Your task to perform on an android device: Open Youtube and go to the subscriptions tab Image 0: 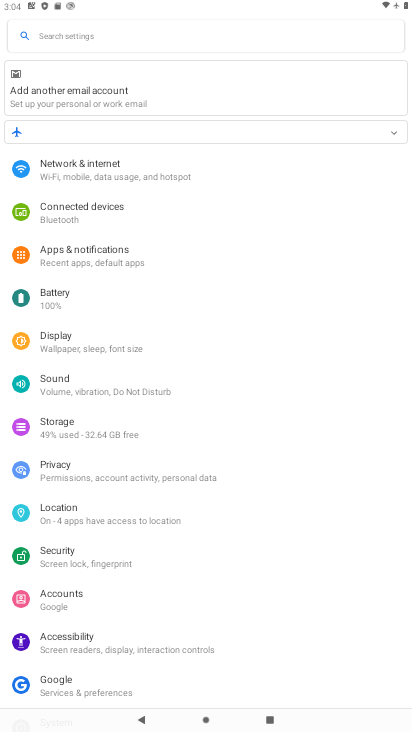
Step 0: press home button
Your task to perform on an android device: Open Youtube and go to the subscriptions tab Image 1: 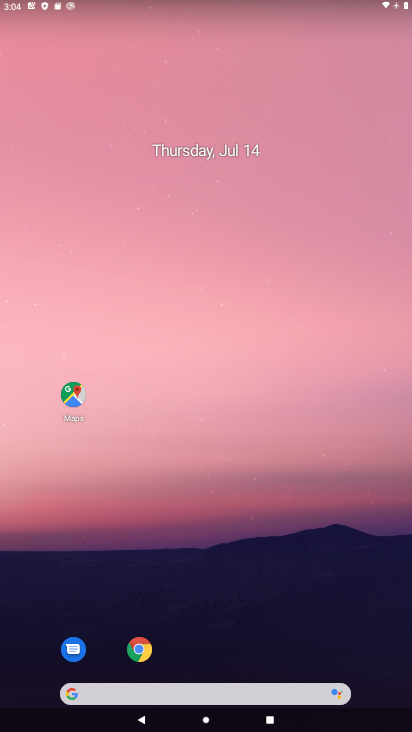
Step 1: drag from (190, 623) to (216, 104)
Your task to perform on an android device: Open Youtube and go to the subscriptions tab Image 2: 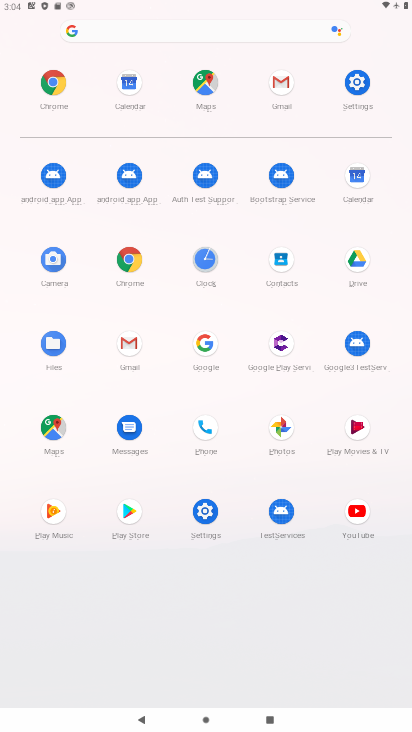
Step 2: click (354, 516)
Your task to perform on an android device: Open Youtube and go to the subscriptions tab Image 3: 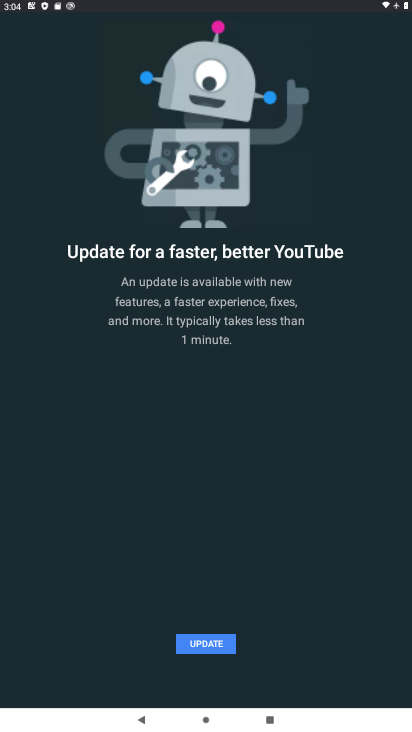
Step 3: click (208, 659)
Your task to perform on an android device: Open Youtube and go to the subscriptions tab Image 4: 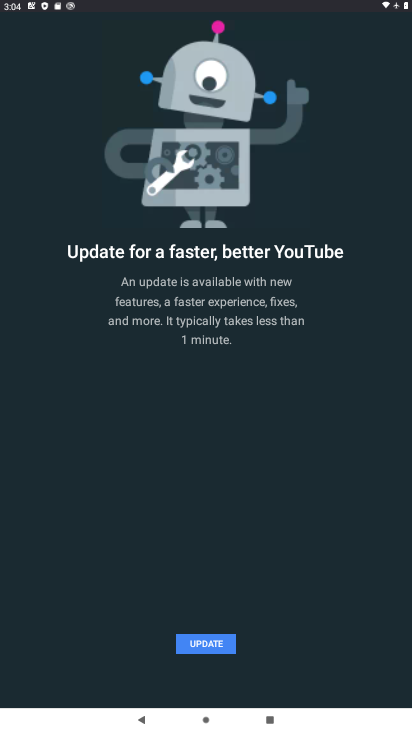
Step 4: click (219, 643)
Your task to perform on an android device: Open Youtube and go to the subscriptions tab Image 5: 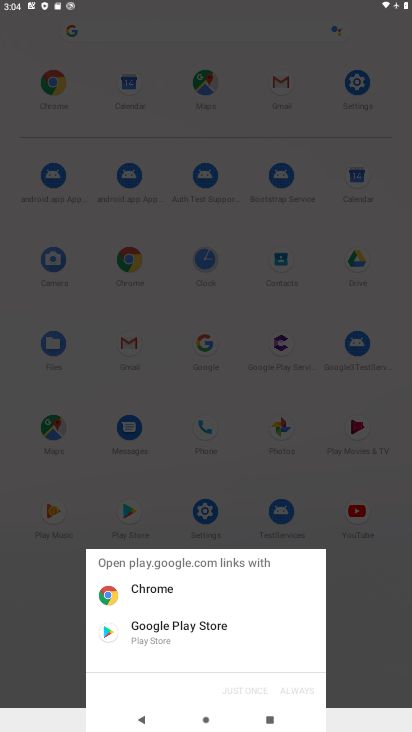
Step 5: click (166, 627)
Your task to perform on an android device: Open Youtube and go to the subscriptions tab Image 6: 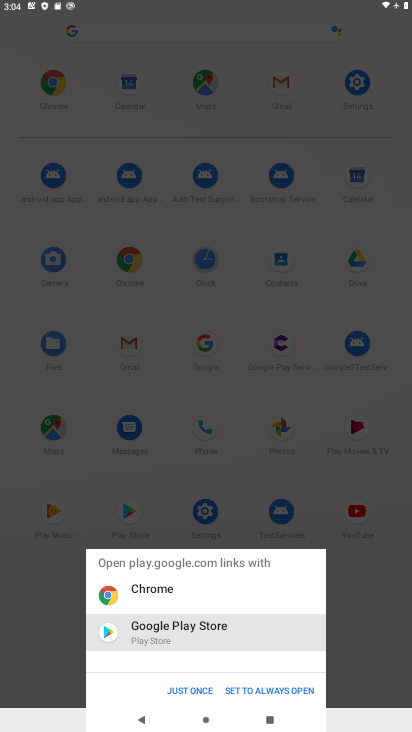
Step 6: click (196, 690)
Your task to perform on an android device: Open Youtube and go to the subscriptions tab Image 7: 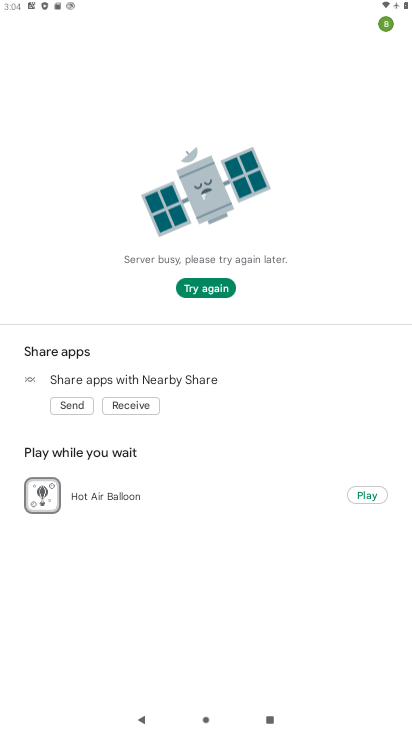
Step 7: click (209, 286)
Your task to perform on an android device: Open Youtube and go to the subscriptions tab Image 8: 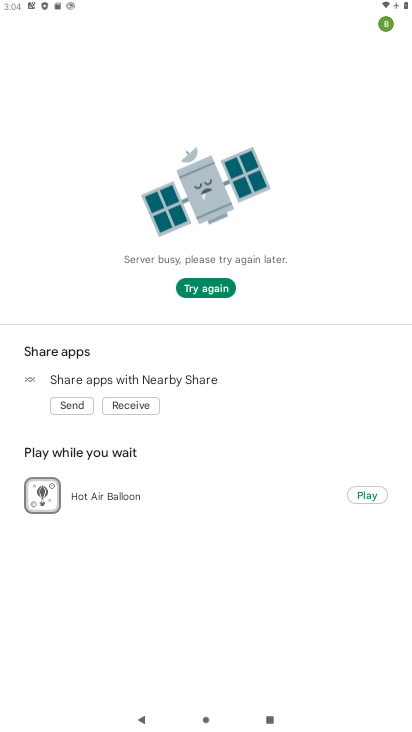
Step 8: click (211, 296)
Your task to perform on an android device: Open Youtube and go to the subscriptions tab Image 9: 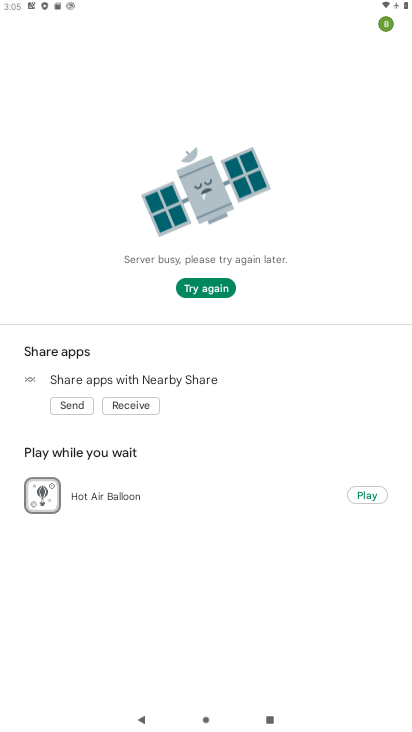
Step 9: task complete